Your task to perform on an android device: Open Chrome and go to the settings page Image 0: 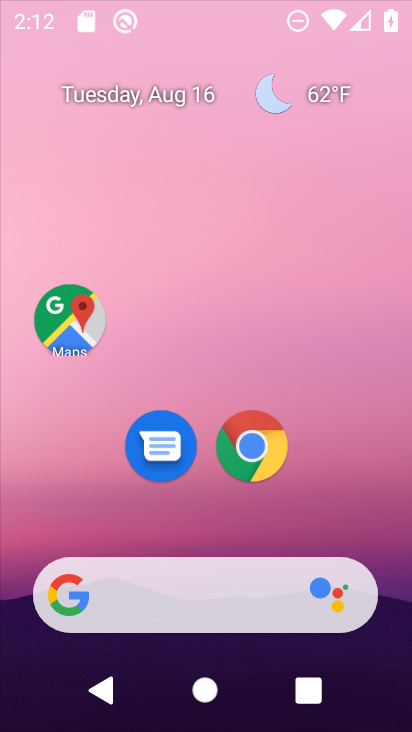
Step 0: press home button
Your task to perform on an android device: Open Chrome and go to the settings page Image 1: 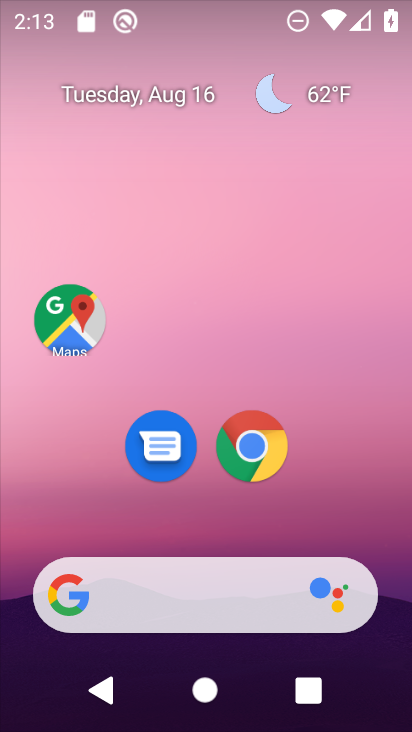
Step 1: drag from (204, 533) to (215, 23)
Your task to perform on an android device: Open Chrome and go to the settings page Image 2: 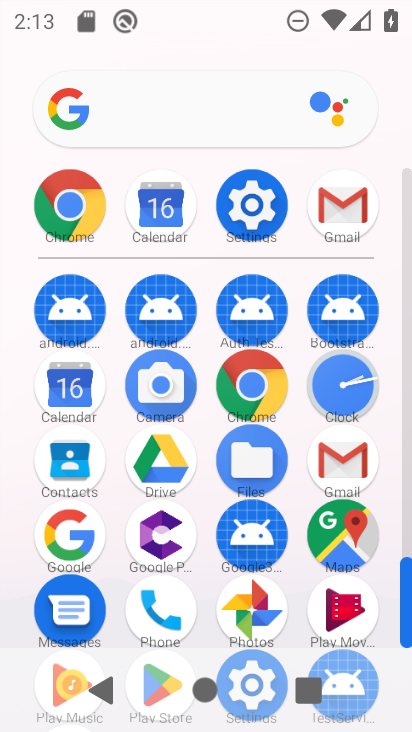
Step 2: click (68, 202)
Your task to perform on an android device: Open Chrome and go to the settings page Image 3: 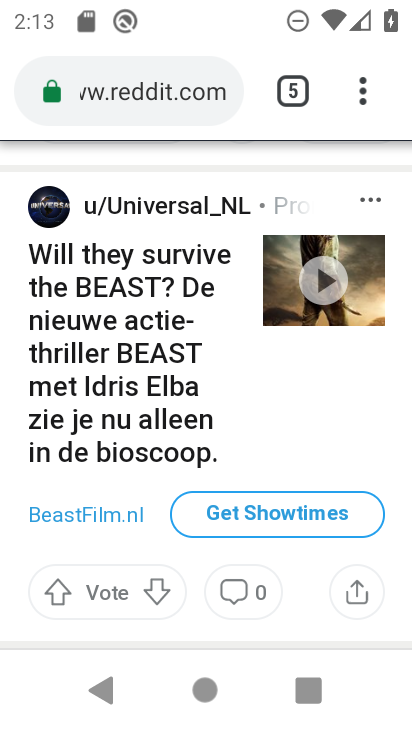
Step 3: click (362, 93)
Your task to perform on an android device: Open Chrome and go to the settings page Image 4: 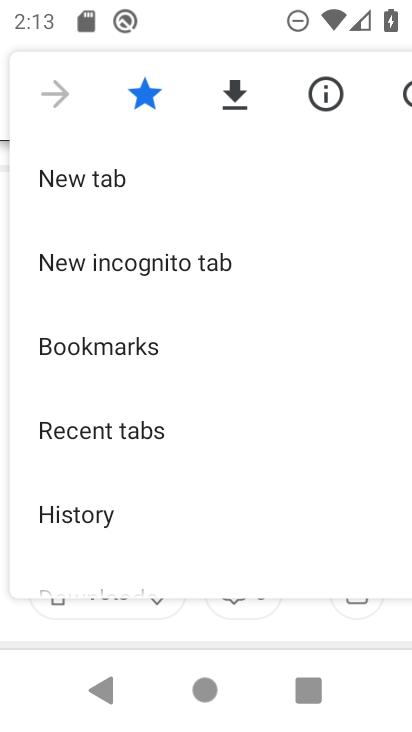
Step 4: drag from (123, 541) to (147, 61)
Your task to perform on an android device: Open Chrome and go to the settings page Image 5: 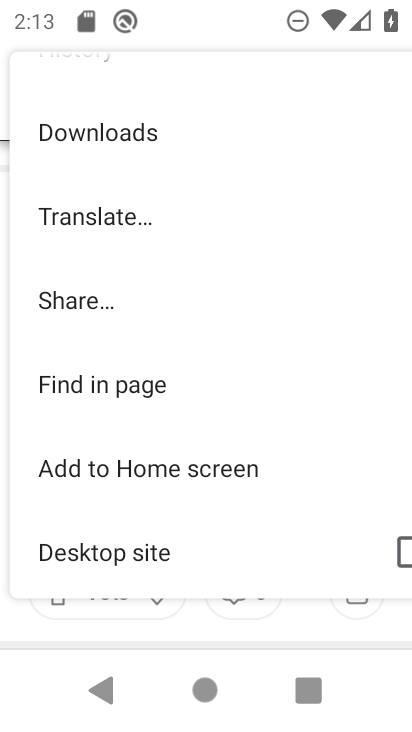
Step 5: drag from (167, 548) to (185, 30)
Your task to perform on an android device: Open Chrome and go to the settings page Image 6: 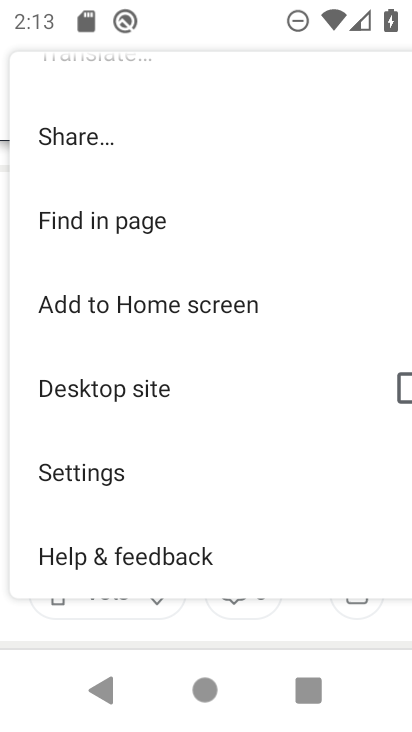
Step 6: click (143, 470)
Your task to perform on an android device: Open Chrome and go to the settings page Image 7: 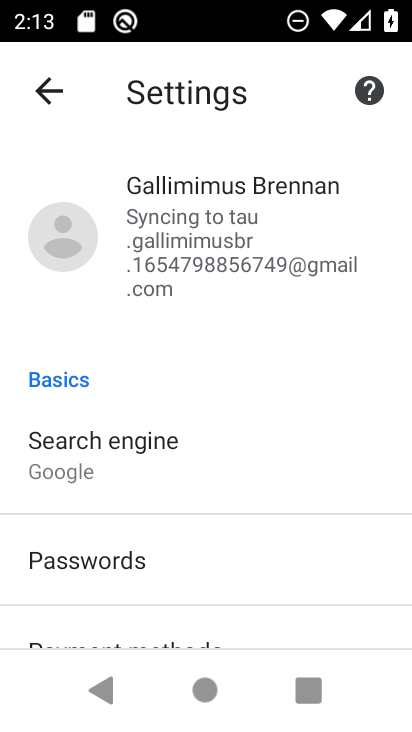
Step 7: task complete